Your task to perform on an android device: uninstall "VLC for Android" Image 0: 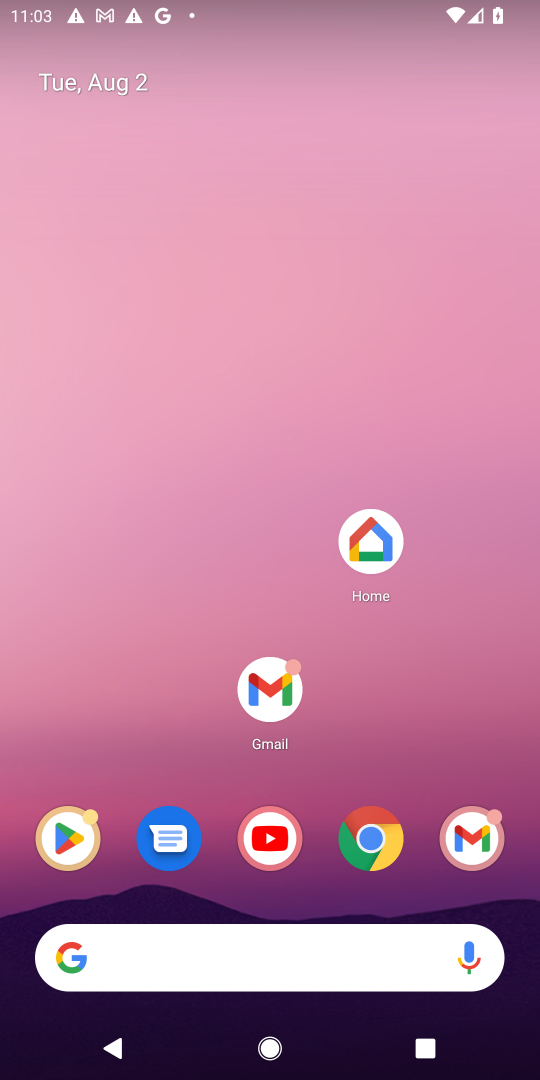
Step 0: press home button
Your task to perform on an android device: uninstall "VLC for Android" Image 1: 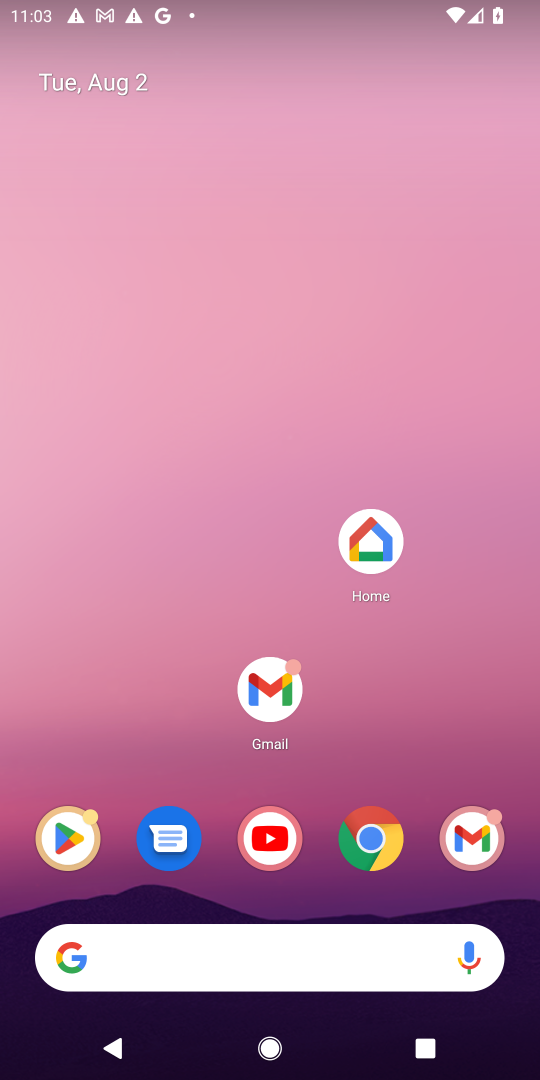
Step 1: drag from (159, 689) to (203, 133)
Your task to perform on an android device: uninstall "VLC for Android" Image 2: 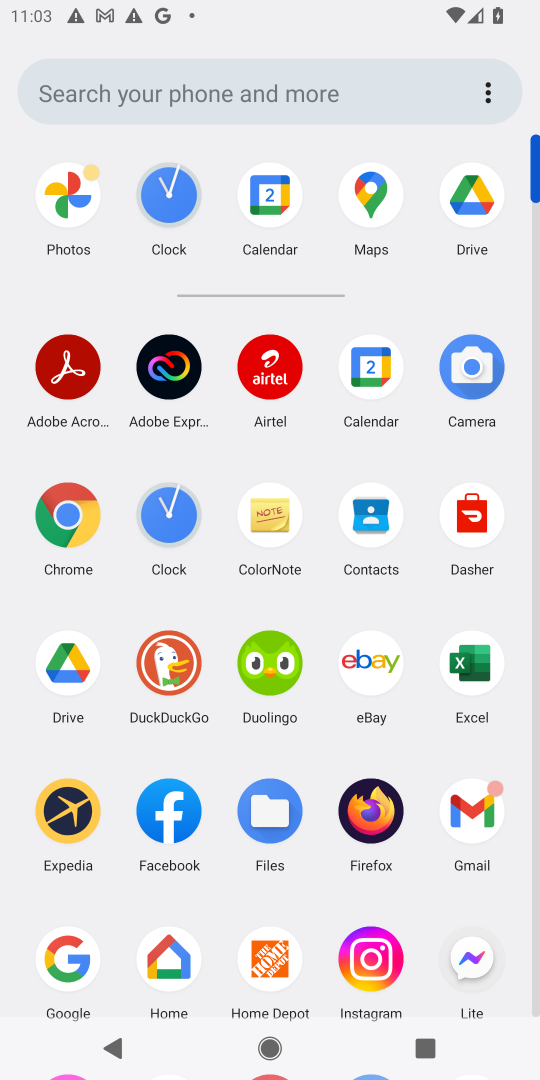
Step 2: drag from (102, 747) to (97, 475)
Your task to perform on an android device: uninstall "VLC for Android" Image 3: 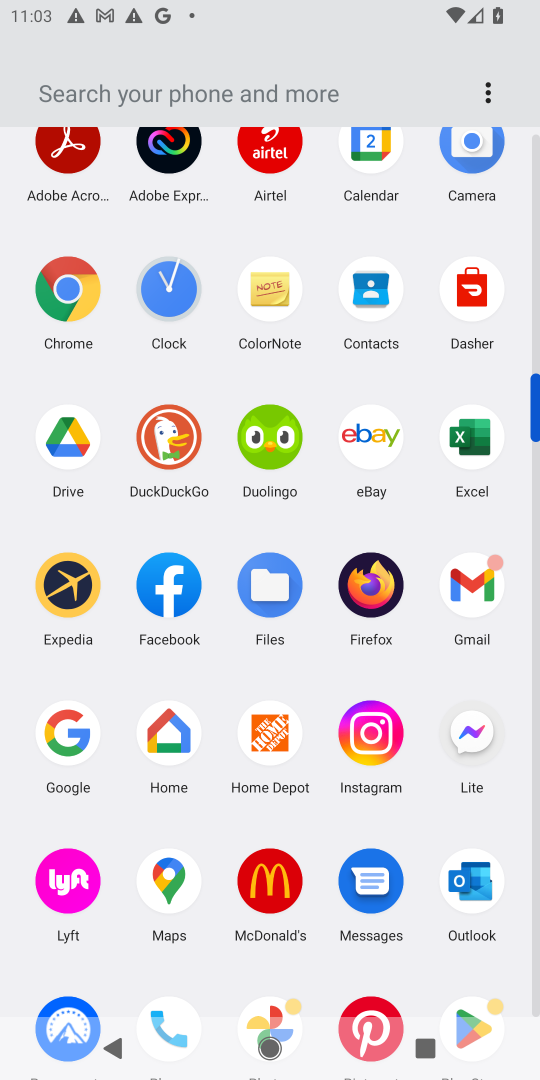
Step 3: drag from (96, 712) to (105, 439)
Your task to perform on an android device: uninstall "VLC for Android" Image 4: 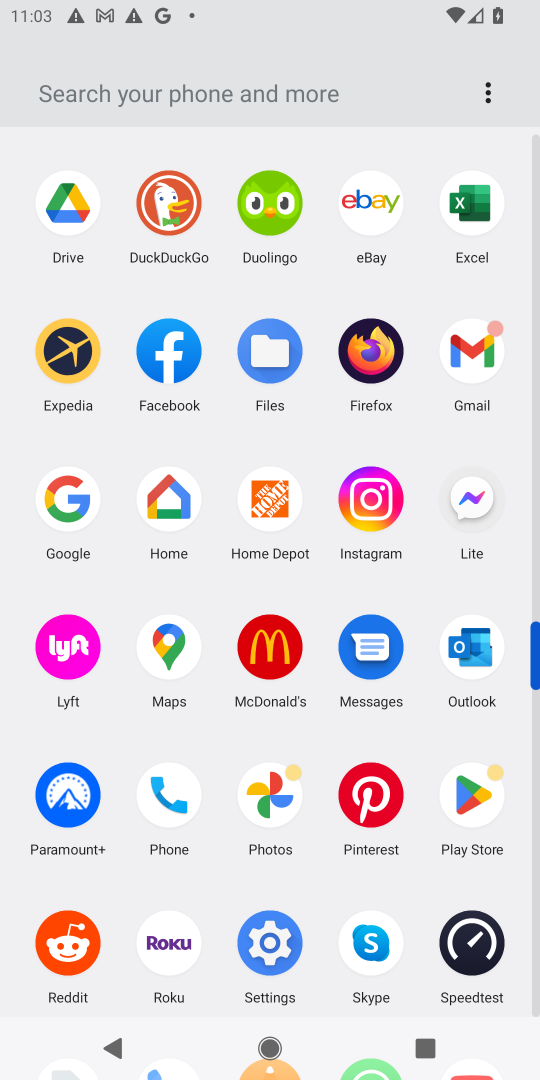
Step 4: click (478, 800)
Your task to perform on an android device: uninstall "VLC for Android" Image 5: 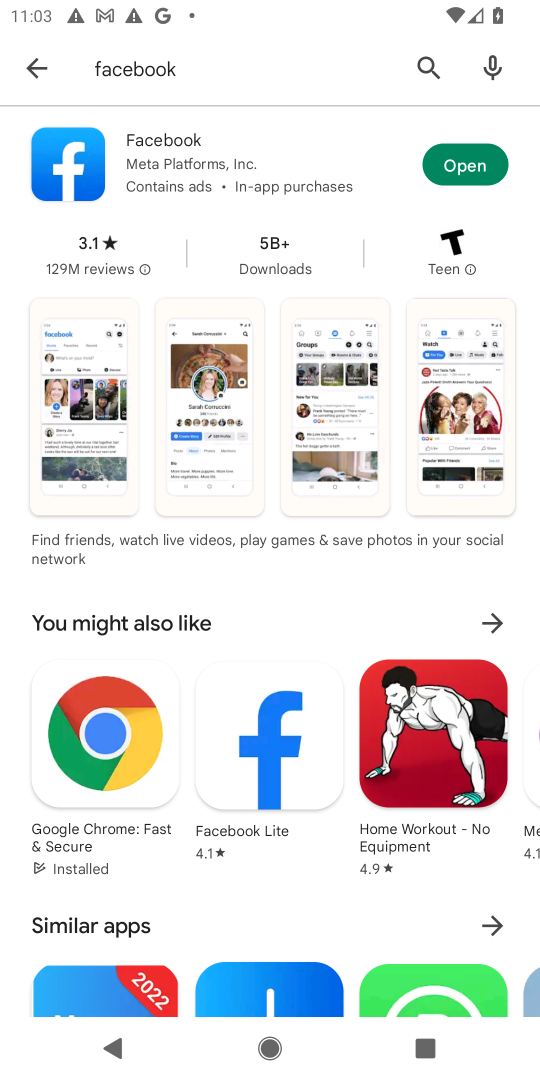
Step 5: click (434, 65)
Your task to perform on an android device: uninstall "VLC for Android" Image 6: 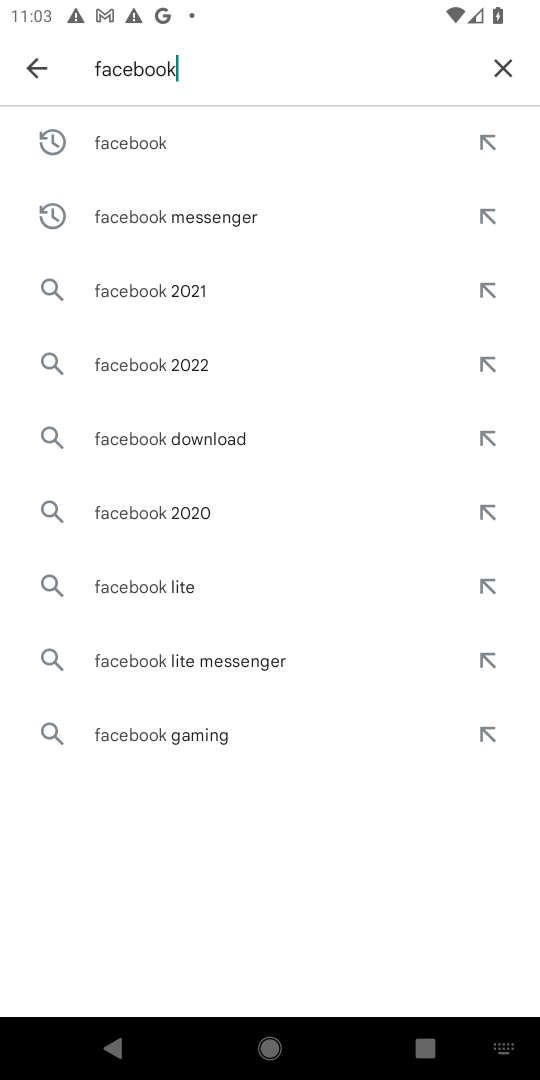
Step 6: click (503, 74)
Your task to perform on an android device: uninstall "VLC for Android" Image 7: 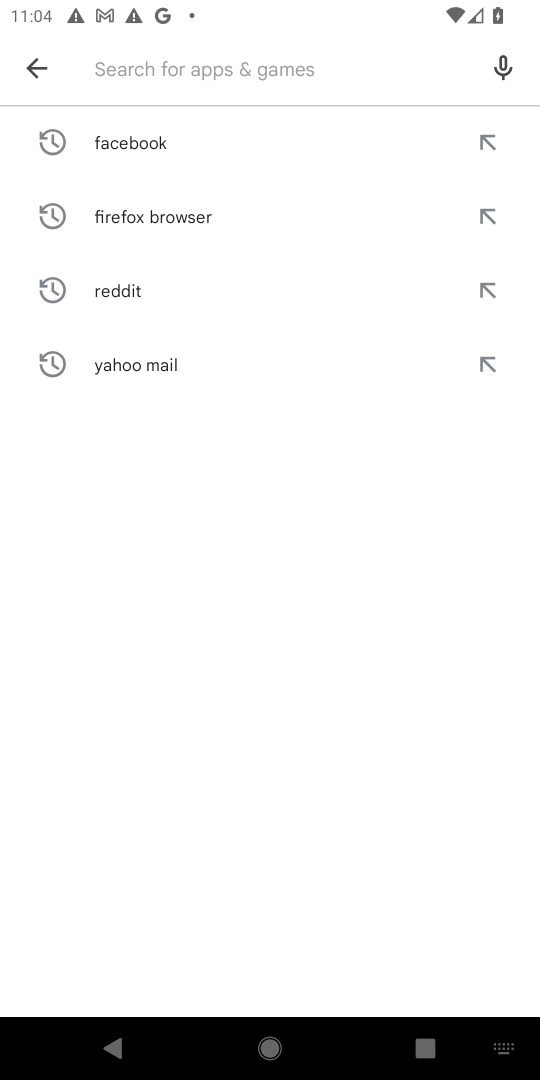
Step 7: click (375, 74)
Your task to perform on an android device: uninstall "VLC for Android" Image 8: 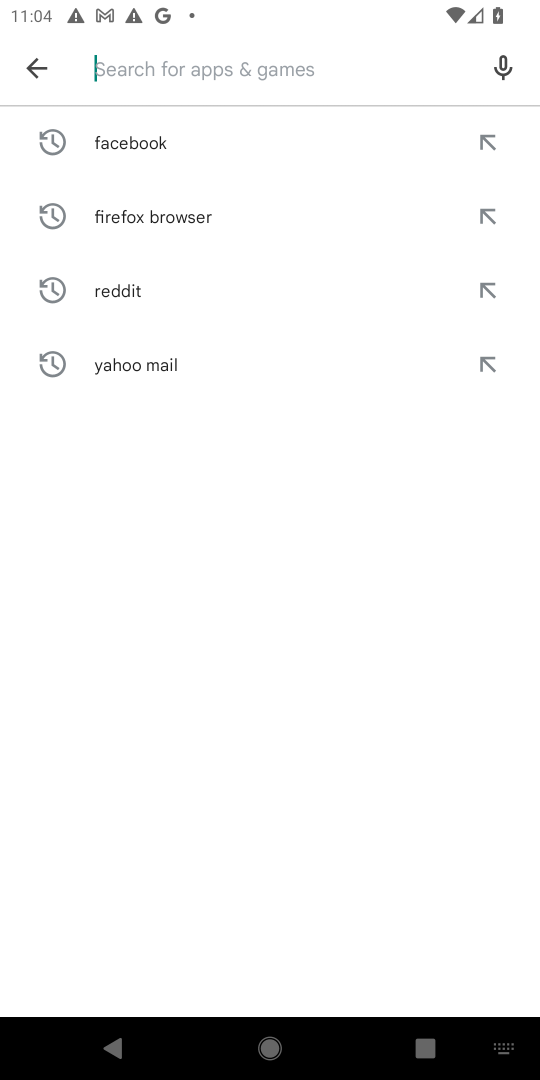
Step 8: type "vlc for android "
Your task to perform on an android device: uninstall "VLC for Android" Image 9: 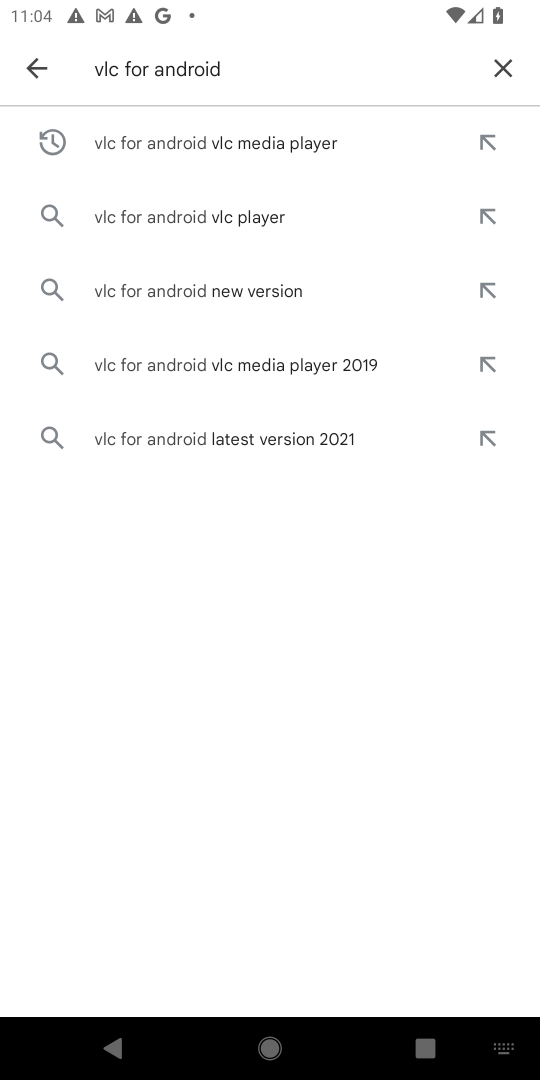
Step 9: click (321, 138)
Your task to perform on an android device: uninstall "VLC for Android" Image 10: 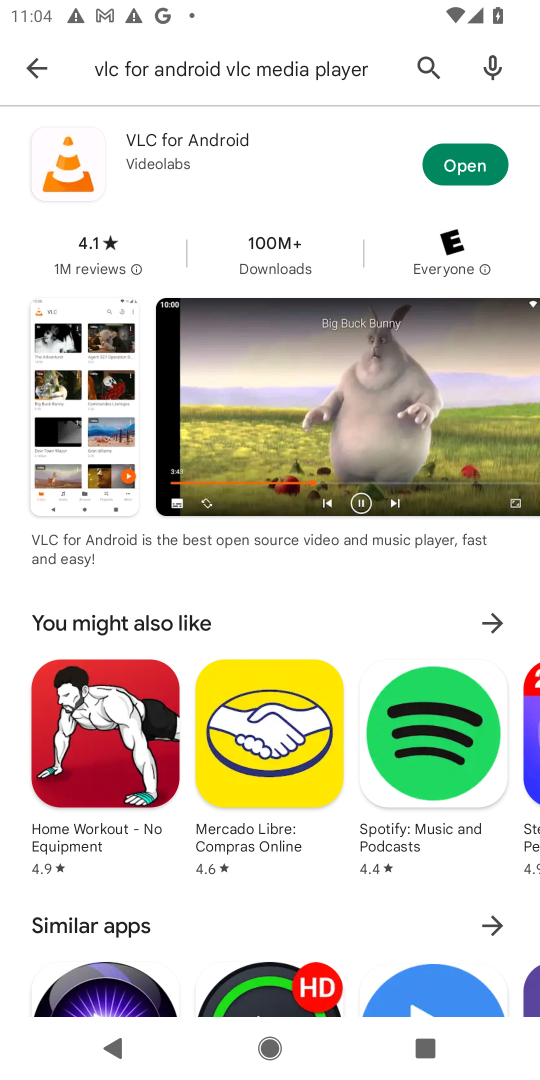
Step 10: task complete